Your task to perform on an android device: toggle show notifications on the lock screen Image 0: 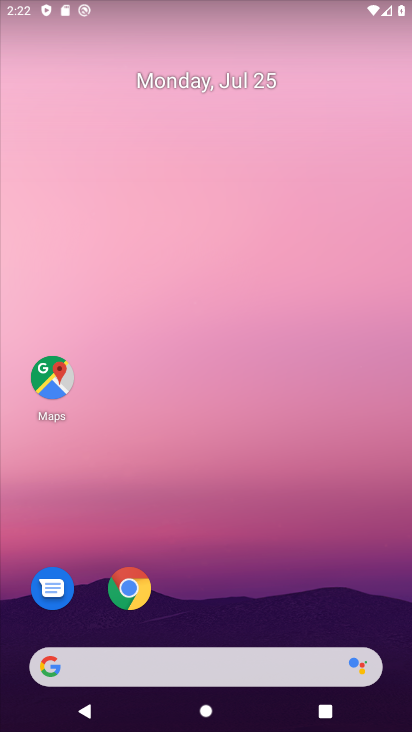
Step 0: drag from (272, 329) to (280, 0)
Your task to perform on an android device: toggle show notifications on the lock screen Image 1: 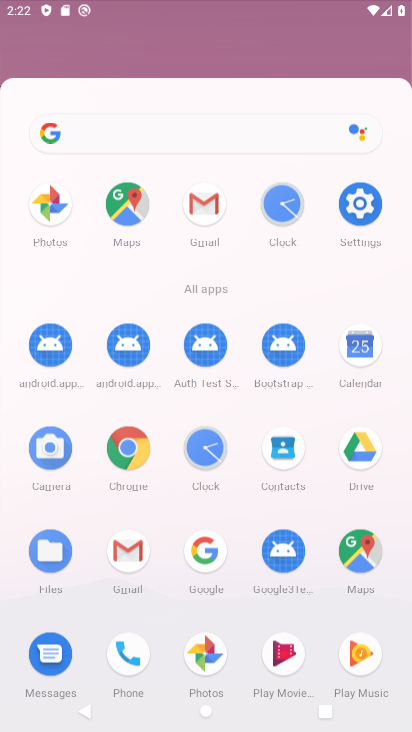
Step 1: drag from (317, 500) to (267, 5)
Your task to perform on an android device: toggle show notifications on the lock screen Image 2: 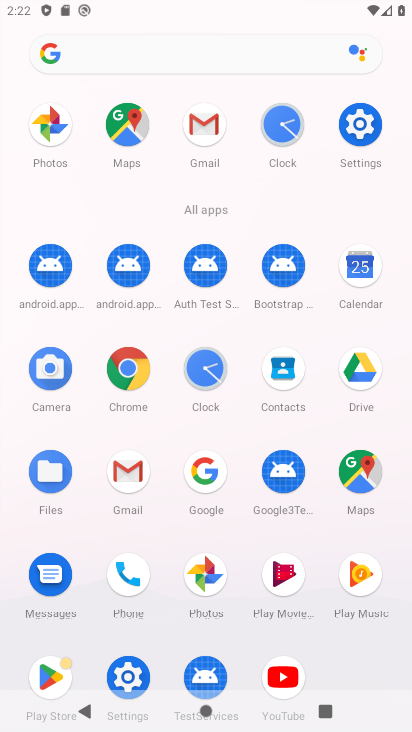
Step 2: click (374, 136)
Your task to perform on an android device: toggle show notifications on the lock screen Image 3: 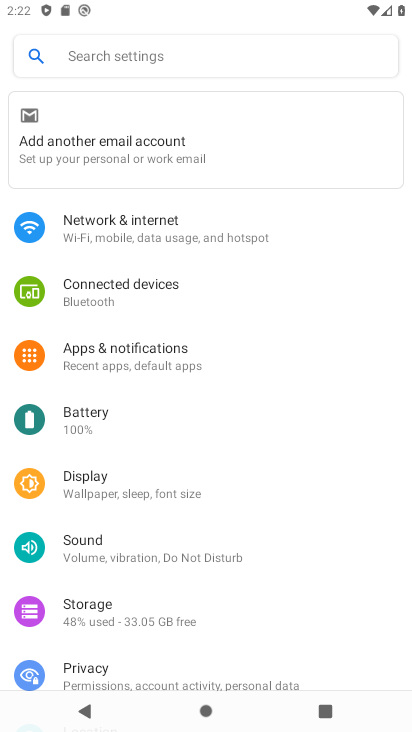
Step 3: click (128, 350)
Your task to perform on an android device: toggle show notifications on the lock screen Image 4: 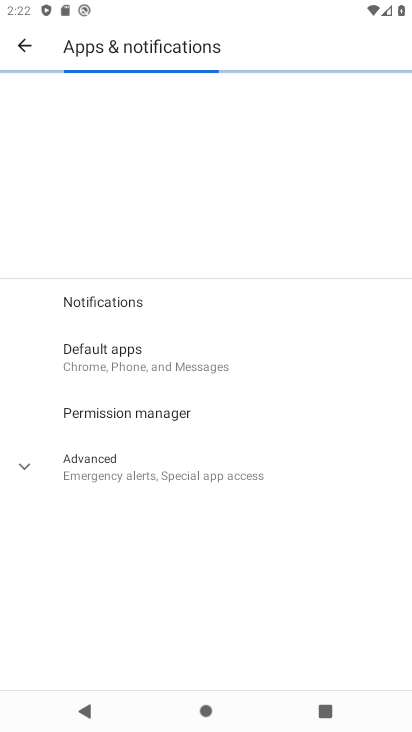
Step 4: click (160, 354)
Your task to perform on an android device: toggle show notifications on the lock screen Image 5: 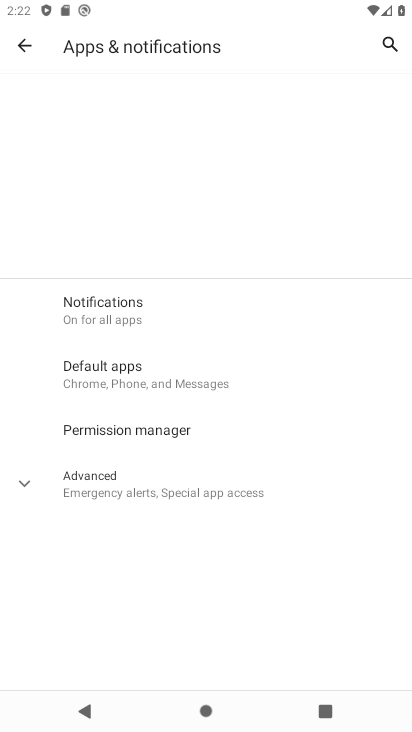
Step 5: click (123, 302)
Your task to perform on an android device: toggle show notifications on the lock screen Image 6: 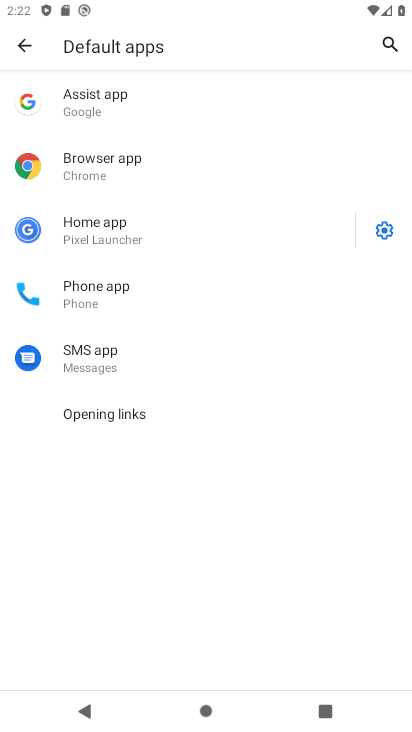
Step 6: click (33, 46)
Your task to perform on an android device: toggle show notifications on the lock screen Image 7: 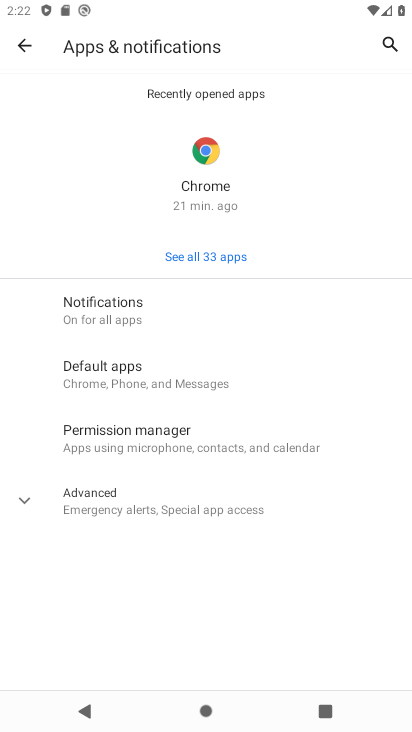
Step 7: click (160, 303)
Your task to perform on an android device: toggle show notifications on the lock screen Image 8: 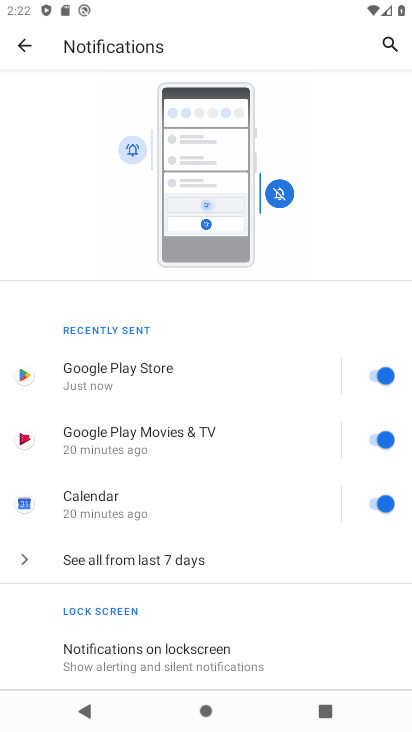
Step 8: click (175, 641)
Your task to perform on an android device: toggle show notifications on the lock screen Image 9: 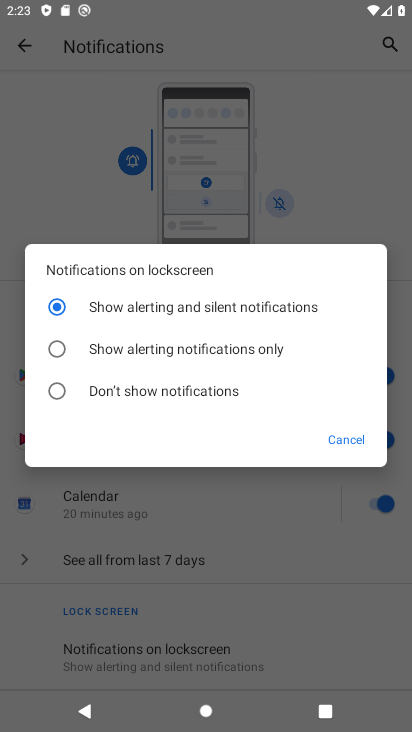
Step 9: click (243, 350)
Your task to perform on an android device: toggle show notifications on the lock screen Image 10: 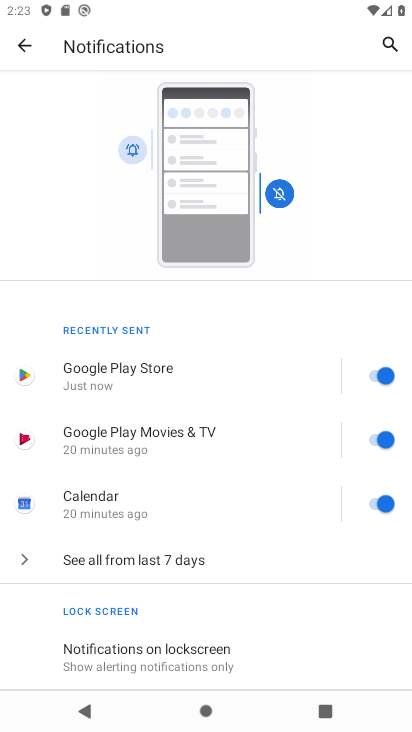
Step 10: task complete